Your task to perform on an android device: Go to sound settings Image 0: 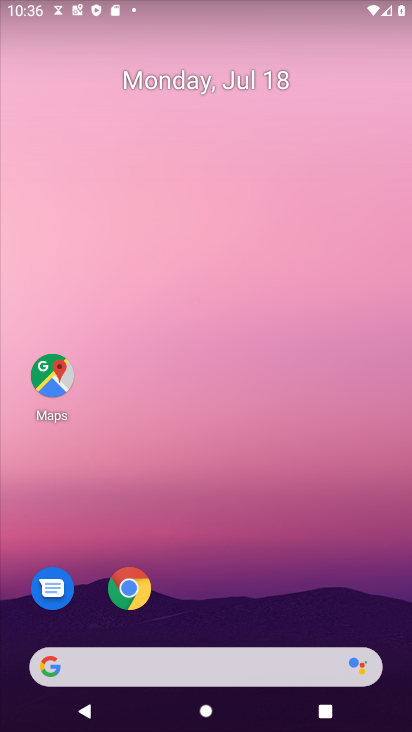
Step 0: drag from (230, 728) to (218, 80)
Your task to perform on an android device: Go to sound settings Image 1: 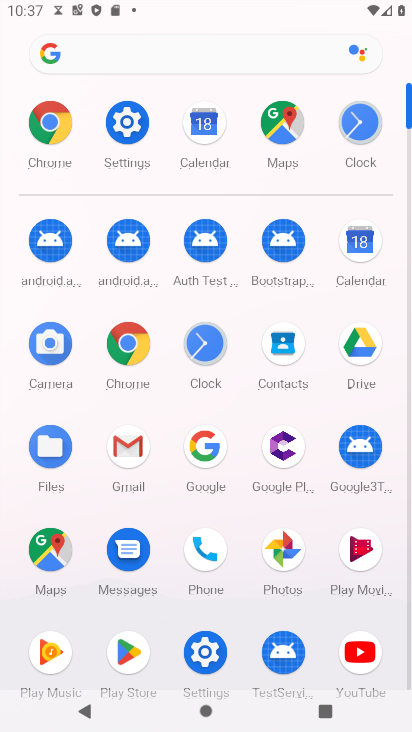
Step 1: click (120, 121)
Your task to perform on an android device: Go to sound settings Image 2: 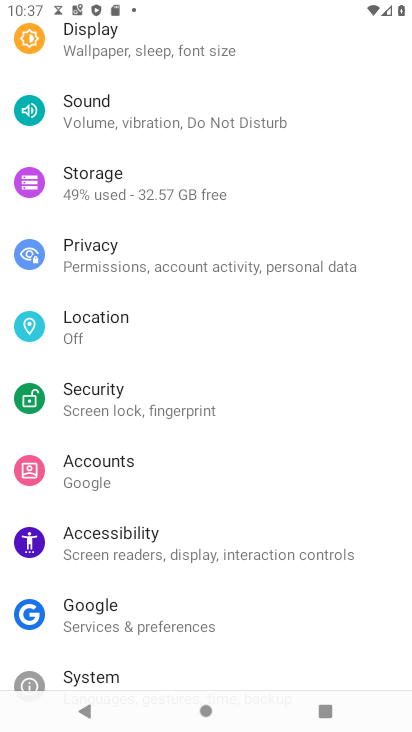
Step 2: click (89, 107)
Your task to perform on an android device: Go to sound settings Image 3: 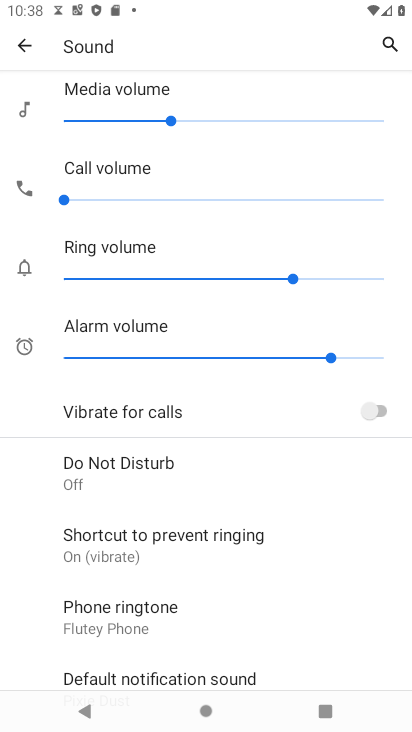
Step 3: task complete